Your task to perform on an android device: turn on javascript in the chrome app Image 0: 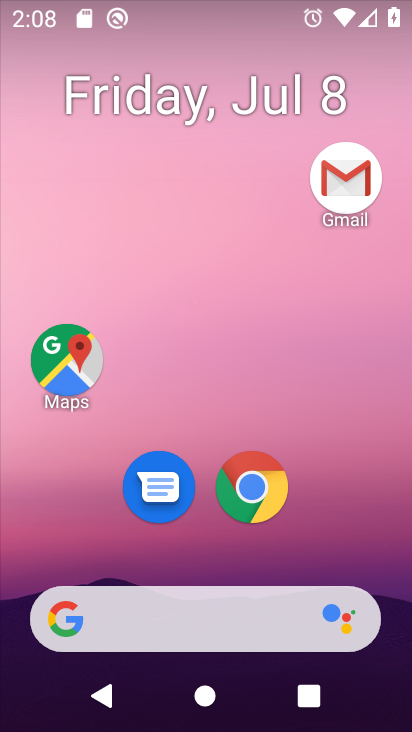
Step 0: drag from (355, 550) to (347, 118)
Your task to perform on an android device: turn on javascript in the chrome app Image 1: 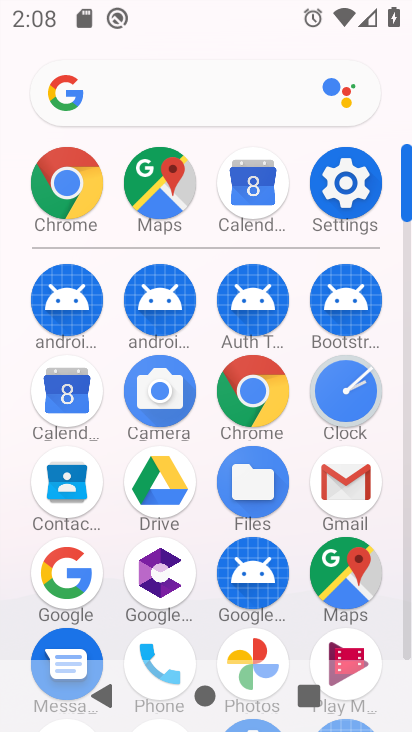
Step 1: click (263, 400)
Your task to perform on an android device: turn on javascript in the chrome app Image 2: 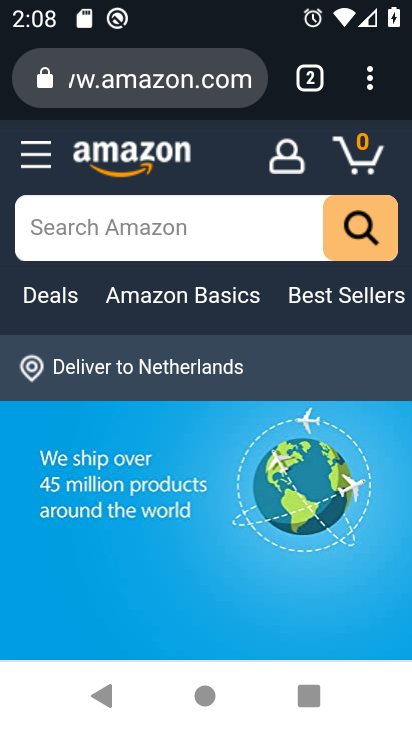
Step 2: click (373, 88)
Your task to perform on an android device: turn on javascript in the chrome app Image 3: 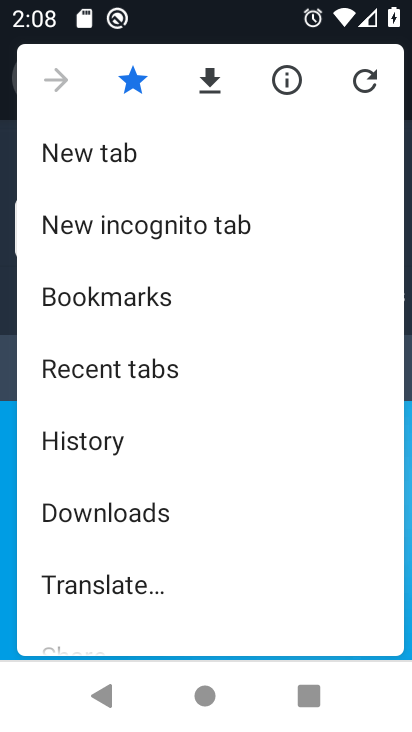
Step 3: drag from (312, 525) to (309, 323)
Your task to perform on an android device: turn on javascript in the chrome app Image 4: 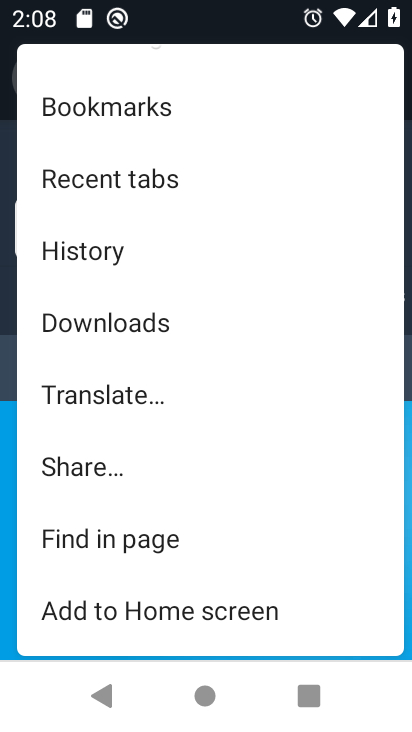
Step 4: drag from (317, 523) to (306, 357)
Your task to perform on an android device: turn on javascript in the chrome app Image 5: 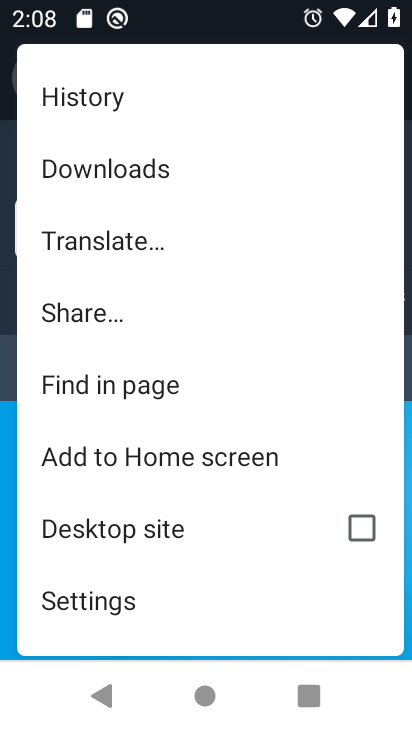
Step 5: drag from (270, 551) to (269, 395)
Your task to perform on an android device: turn on javascript in the chrome app Image 6: 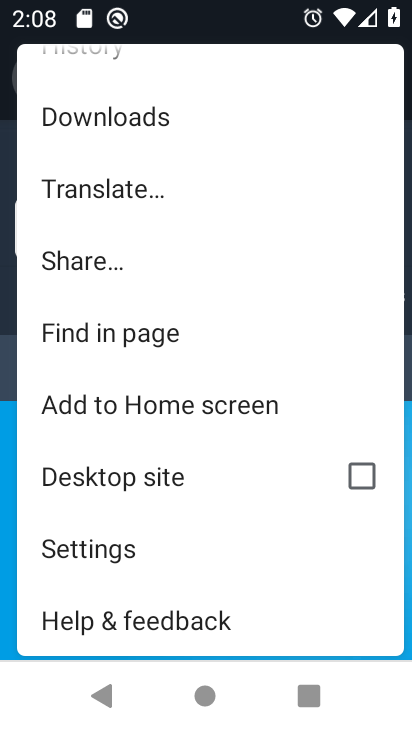
Step 6: click (176, 555)
Your task to perform on an android device: turn on javascript in the chrome app Image 7: 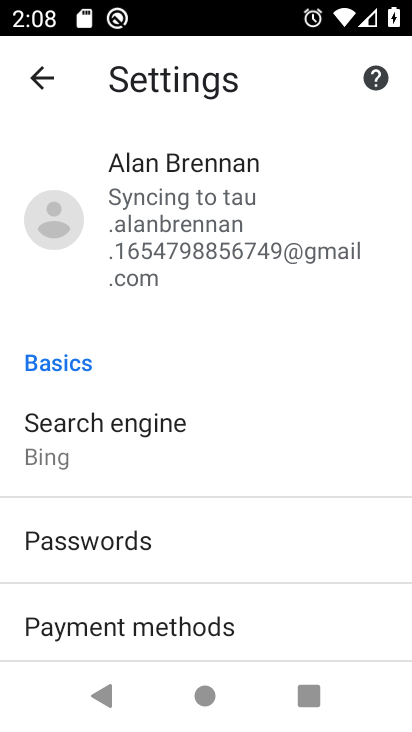
Step 7: drag from (302, 539) to (298, 411)
Your task to perform on an android device: turn on javascript in the chrome app Image 8: 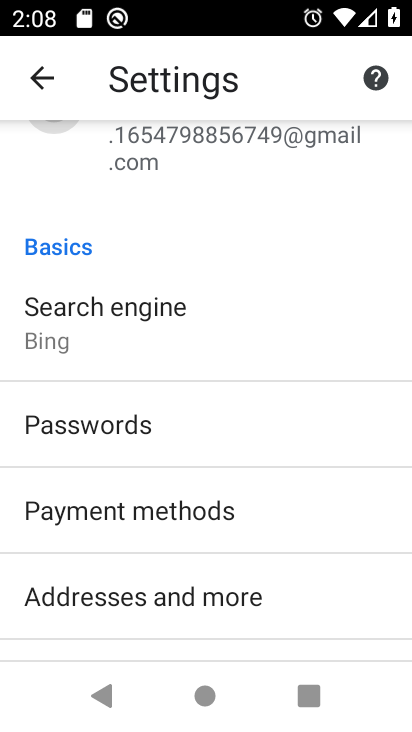
Step 8: drag from (320, 543) to (310, 406)
Your task to perform on an android device: turn on javascript in the chrome app Image 9: 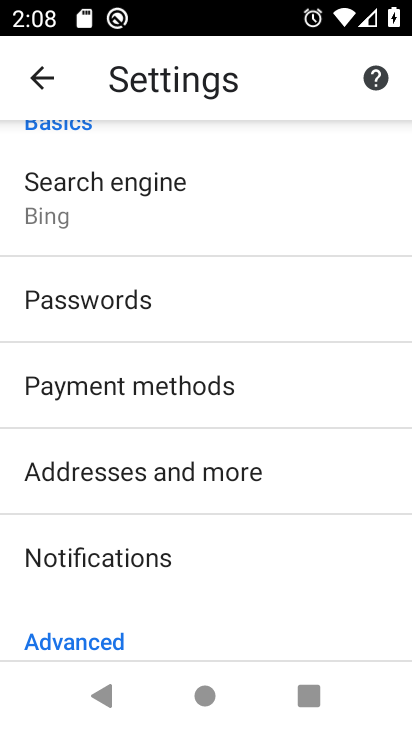
Step 9: drag from (335, 513) to (336, 372)
Your task to perform on an android device: turn on javascript in the chrome app Image 10: 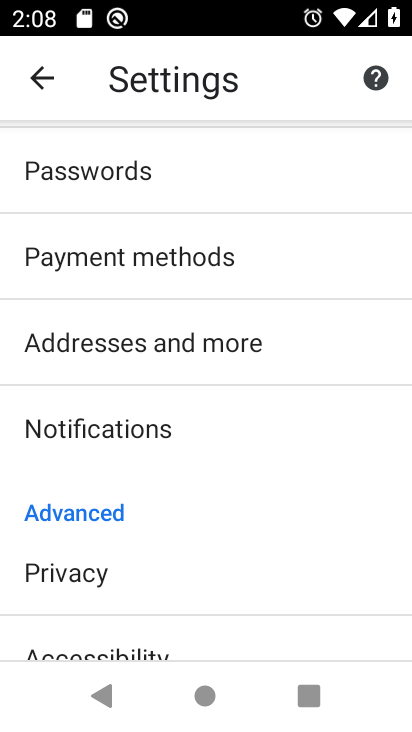
Step 10: drag from (323, 516) to (324, 374)
Your task to perform on an android device: turn on javascript in the chrome app Image 11: 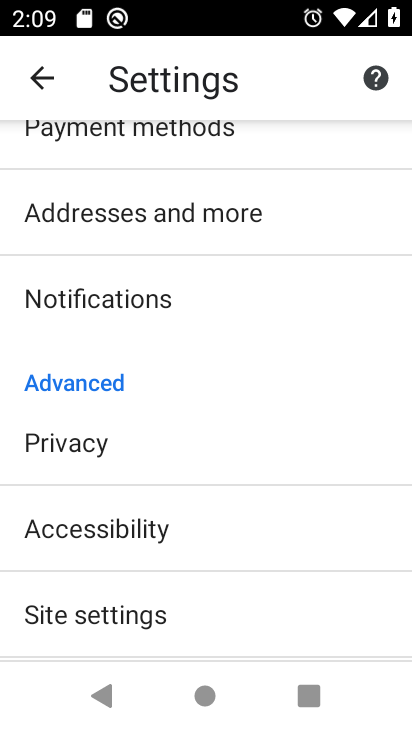
Step 11: drag from (317, 541) to (321, 436)
Your task to perform on an android device: turn on javascript in the chrome app Image 12: 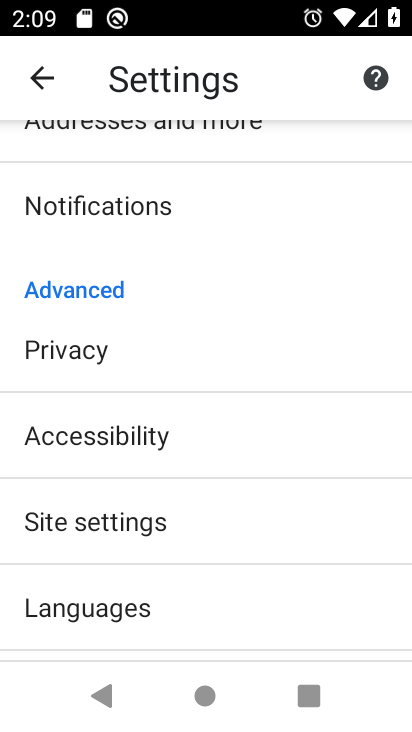
Step 12: click (288, 533)
Your task to perform on an android device: turn on javascript in the chrome app Image 13: 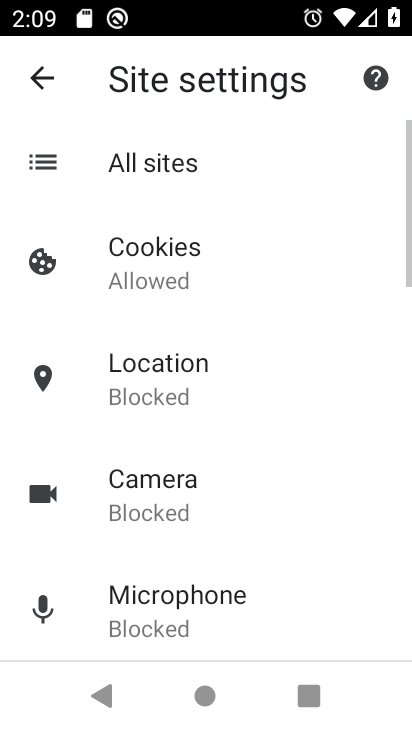
Step 13: drag from (341, 491) to (341, 342)
Your task to perform on an android device: turn on javascript in the chrome app Image 14: 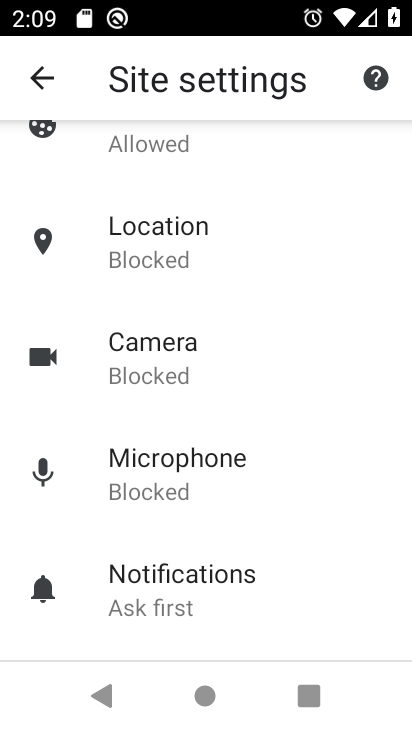
Step 14: drag from (312, 486) to (314, 357)
Your task to perform on an android device: turn on javascript in the chrome app Image 15: 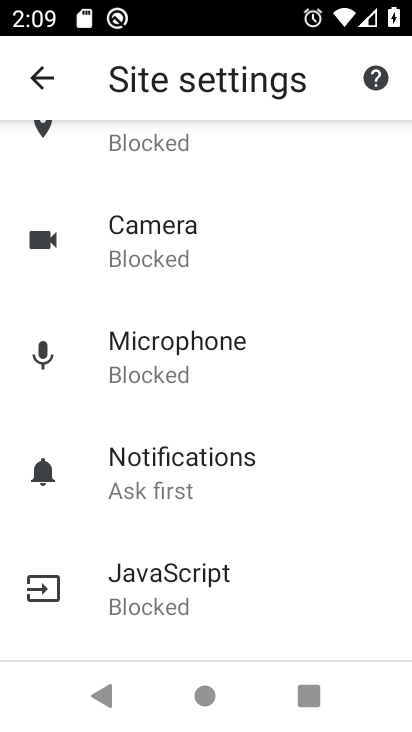
Step 15: drag from (308, 528) to (325, 385)
Your task to perform on an android device: turn on javascript in the chrome app Image 16: 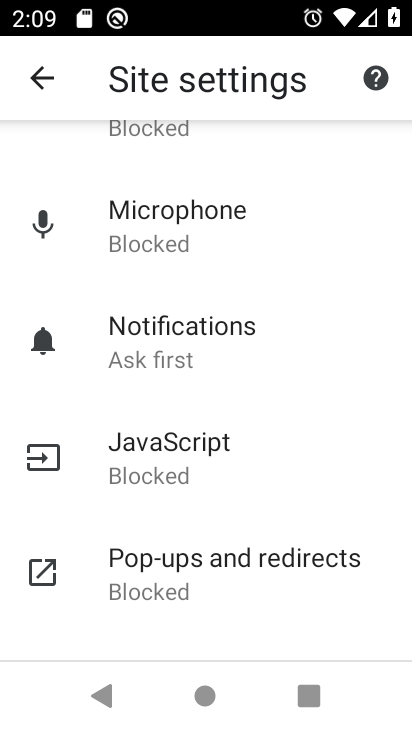
Step 16: click (255, 475)
Your task to perform on an android device: turn on javascript in the chrome app Image 17: 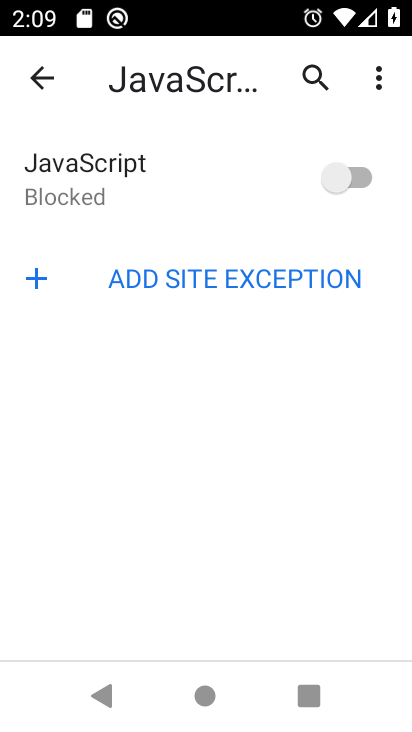
Step 17: click (338, 173)
Your task to perform on an android device: turn on javascript in the chrome app Image 18: 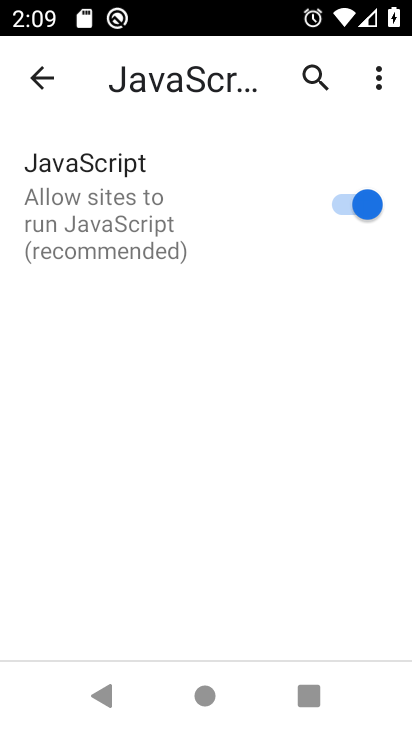
Step 18: task complete